Your task to perform on an android device: move a message to another label in the gmail app Image 0: 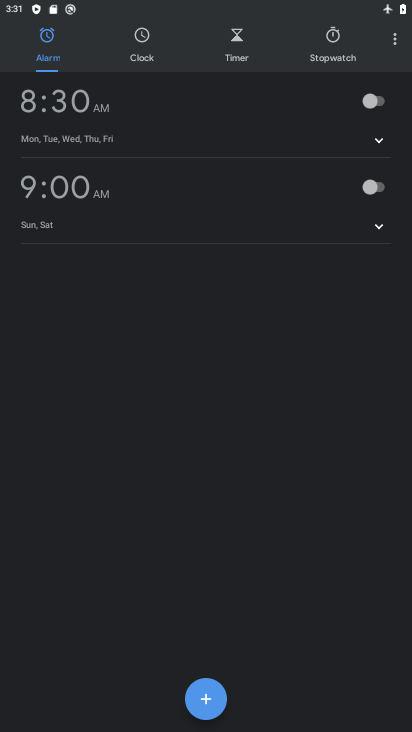
Step 0: press home button
Your task to perform on an android device: move a message to another label in the gmail app Image 1: 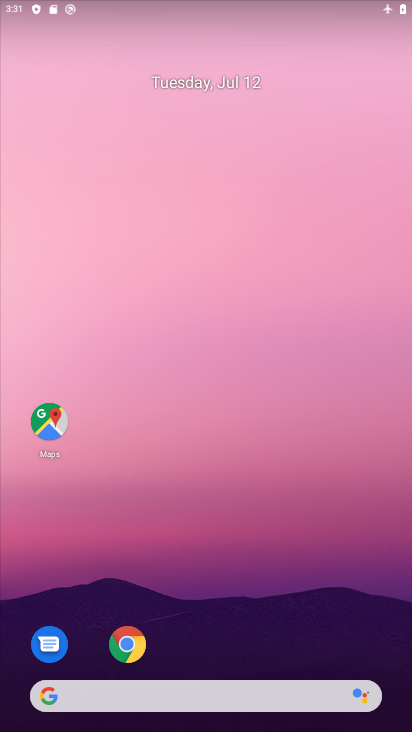
Step 1: drag from (299, 495) to (247, 96)
Your task to perform on an android device: move a message to another label in the gmail app Image 2: 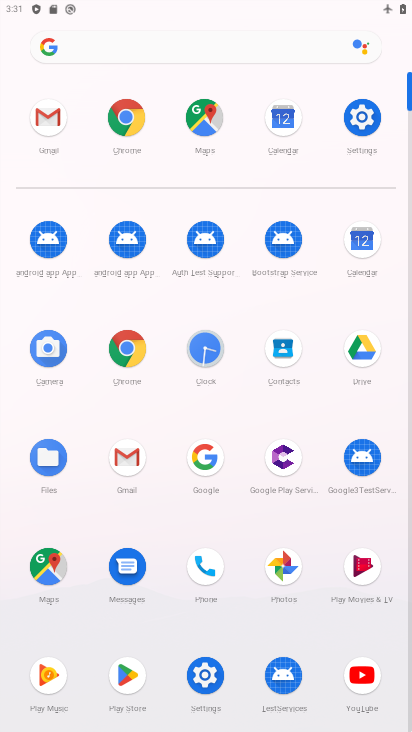
Step 2: click (47, 116)
Your task to perform on an android device: move a message to another label in the gmail app Image 3: 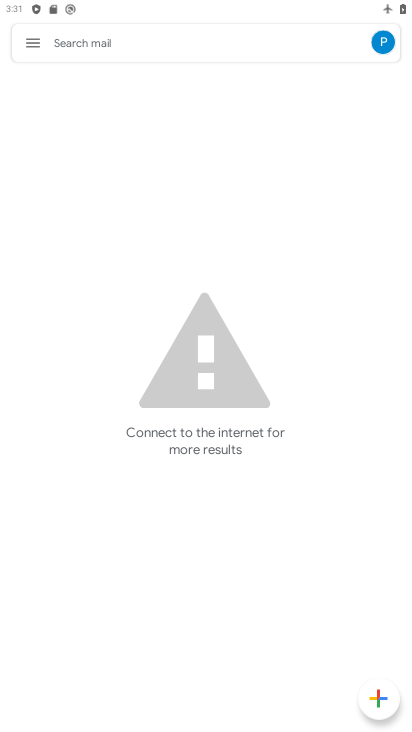
Step 3: task complete